Your task to perform on an android device: Open the map Image 0: 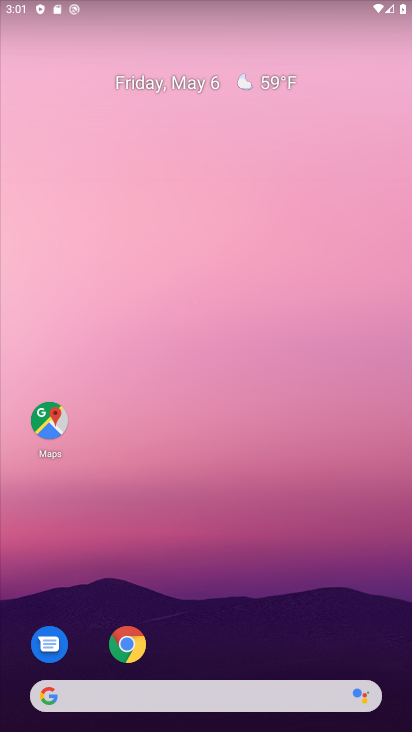
Step 0: click (50, 421)
Your task to perform on an android device: Open the map Image 1: 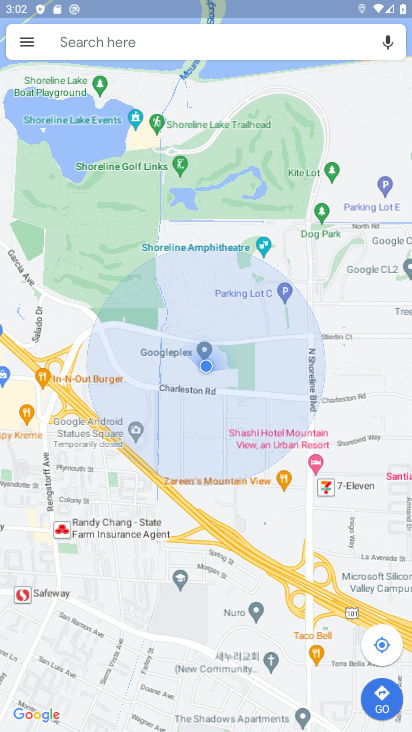
Step 1: task complete